Your task to perform on an android device: turn off priority inbox in the gmail app Image 0: 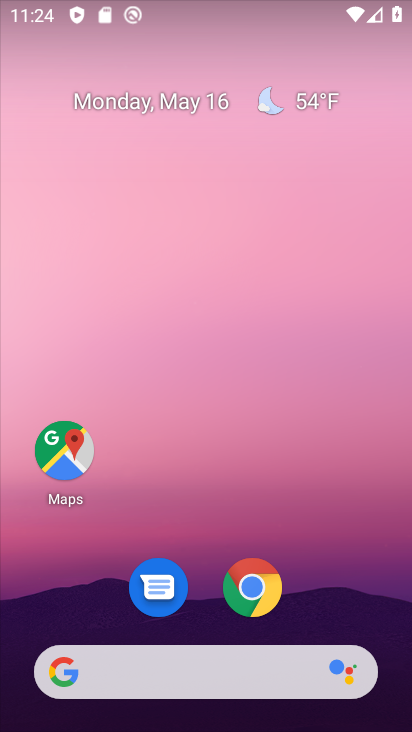
Step 0: drag from (200, 606) to (205, 113)
Your task to perform on an android device: turn off priority inbox in the gmail app Image 1: 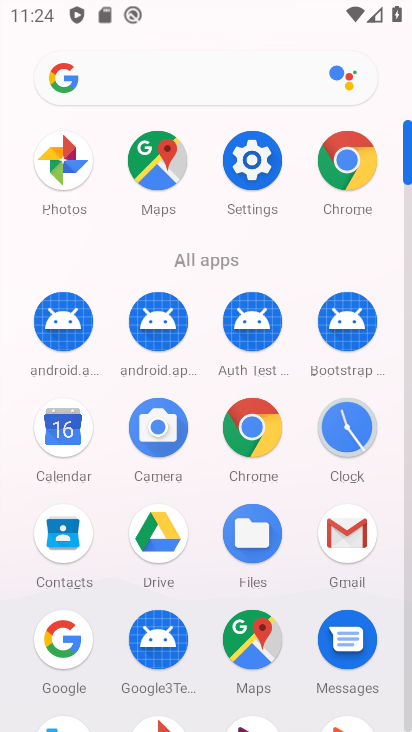
Step 1: click (355, 544)
Your task to perform on an android device: turn off priority inbox in the gmail app Image 2: 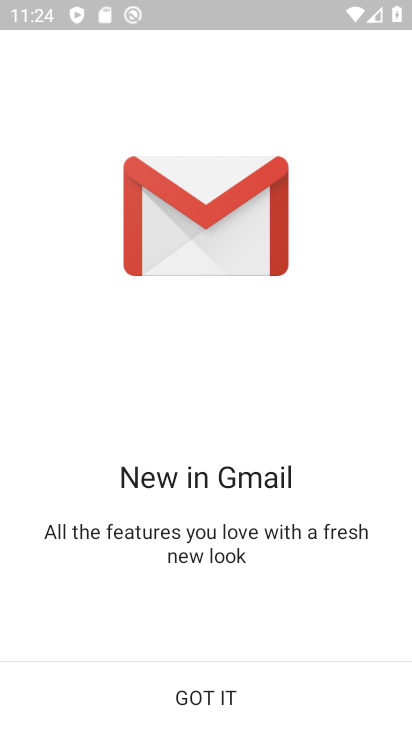
Step 2: click (248, 697)
Your task to perform on an android device: turn off priority inbox in the gmail app Image 3: 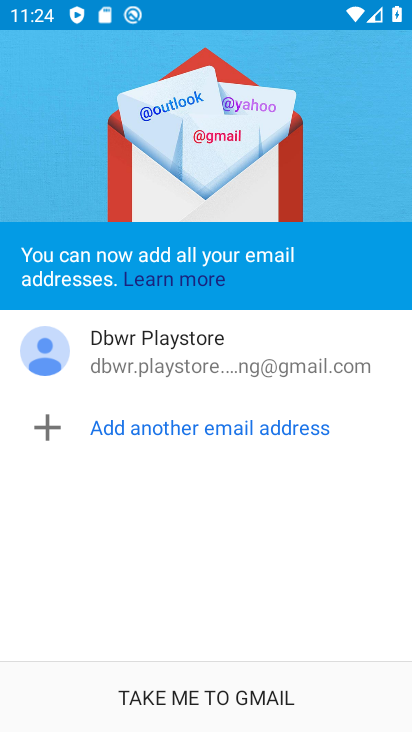
Step 3: click (245, 695)
Your task to perform on an android device: turn off priority inbox in the gmail app Image 4: 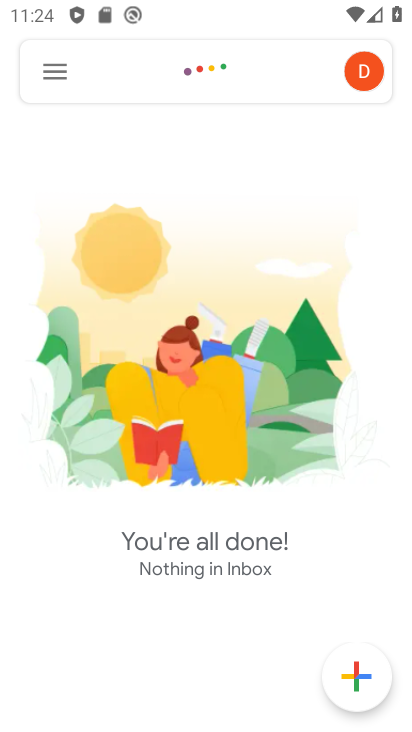
Step 4: click (54, 78)
Your task to perform on an android device: turn off priority inbox in the gmail app Image 5: 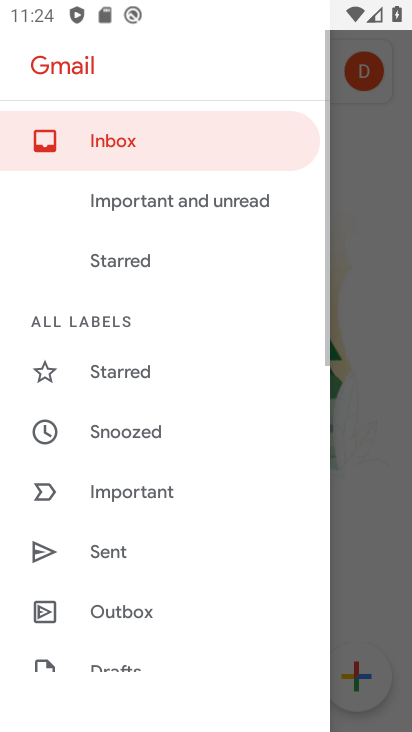
Step 5: drag from (109, 618) to (175, 179)
Your task to perform on an android device: turn off priority inbox in the gmail app Image 6: 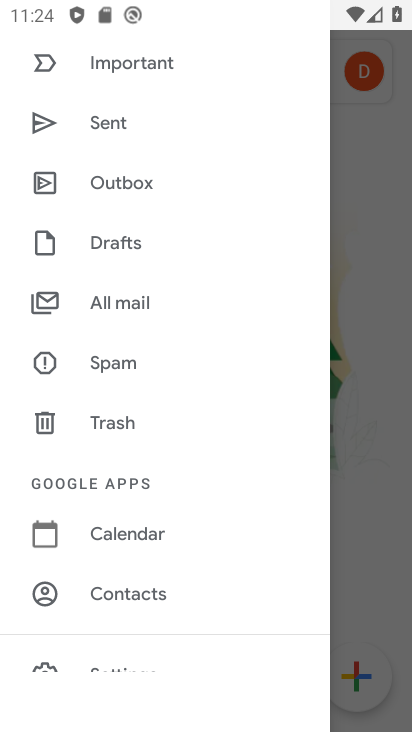
Step 6: drag from (159, 565) to (199, 233)
Your task to perform on an android device: turn off priority inbox in the gmail app Image 7: 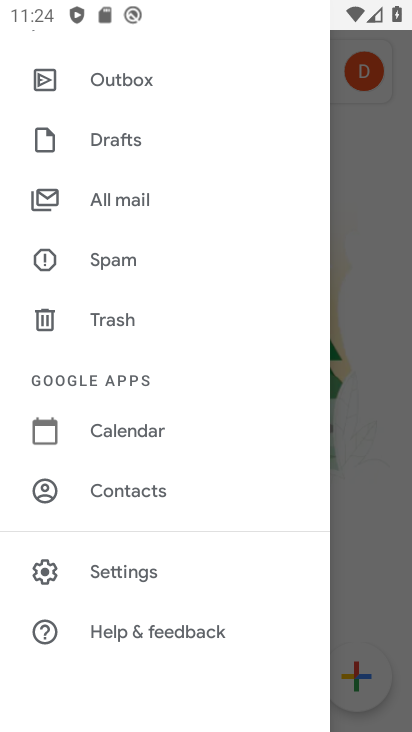
Step 7: click (108, 578)
Your task to perform on an android device: turn off priority inbox in the gmail app Image 8: 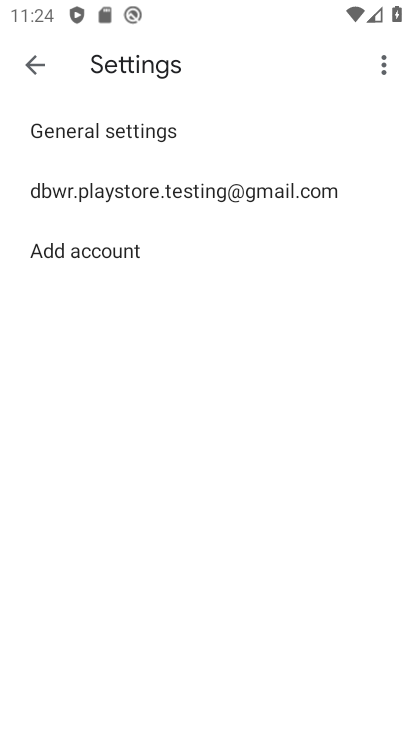
Step 8: click (127, 186)
Your task to perform on an android device: turn off priority inbox in the gmail app Image 9: 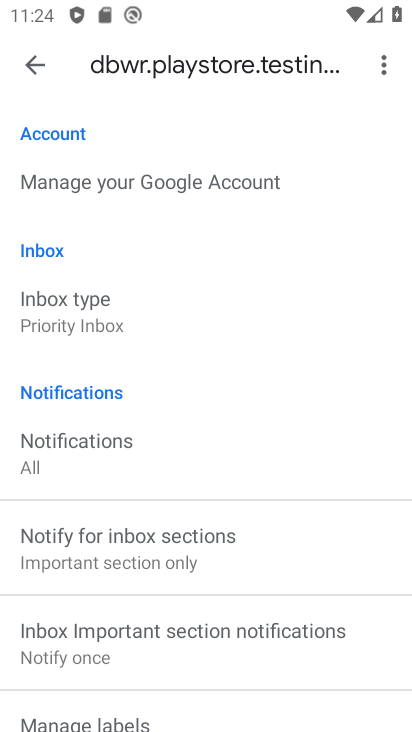
Step 9: click (100, 328)
Your task to perform on an android device: turn off priority inbox in the gmail app Image 10: 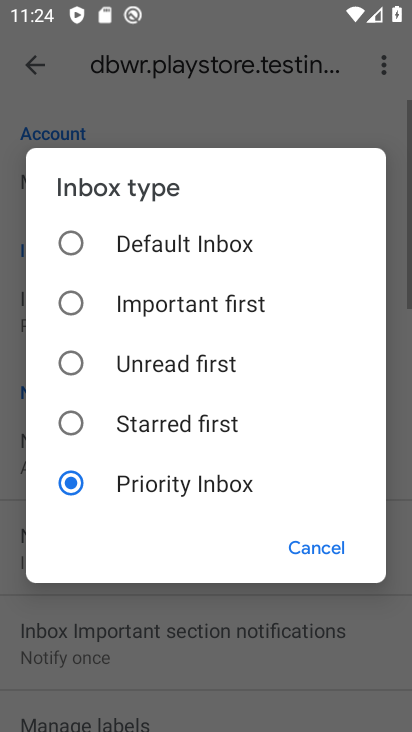
Step 10: click (127, 253)
Your task to perform on an android device: turn off priority inbox in the gmail app Image 11: 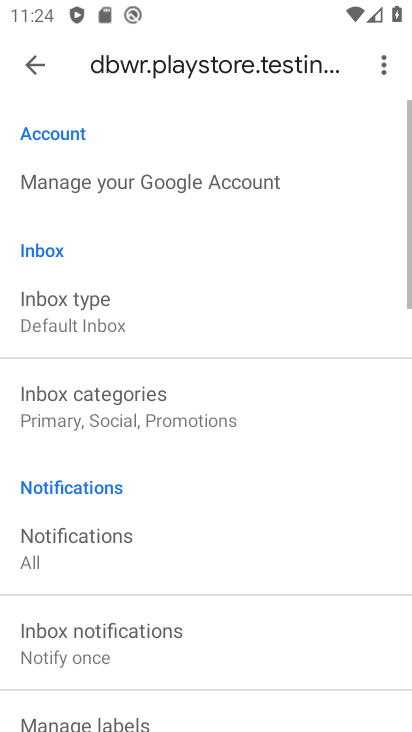
Step 11: task complete